Your task to perform on an android device: turn off location Image 0: 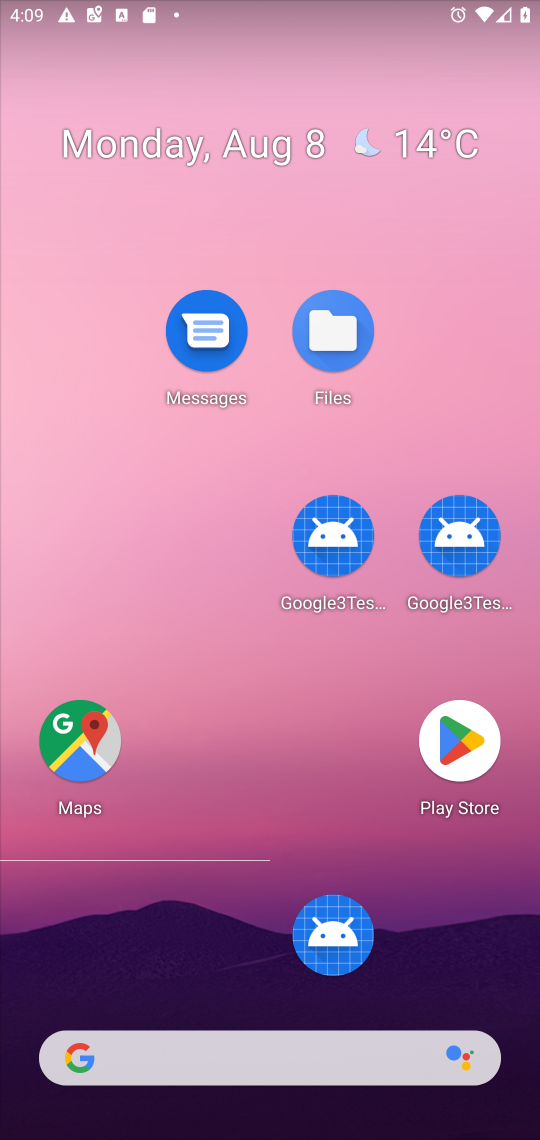
Step 0: drag from (297, 1065) to (359, 221)
Your task to perform on an android device: turn off location Image 1: 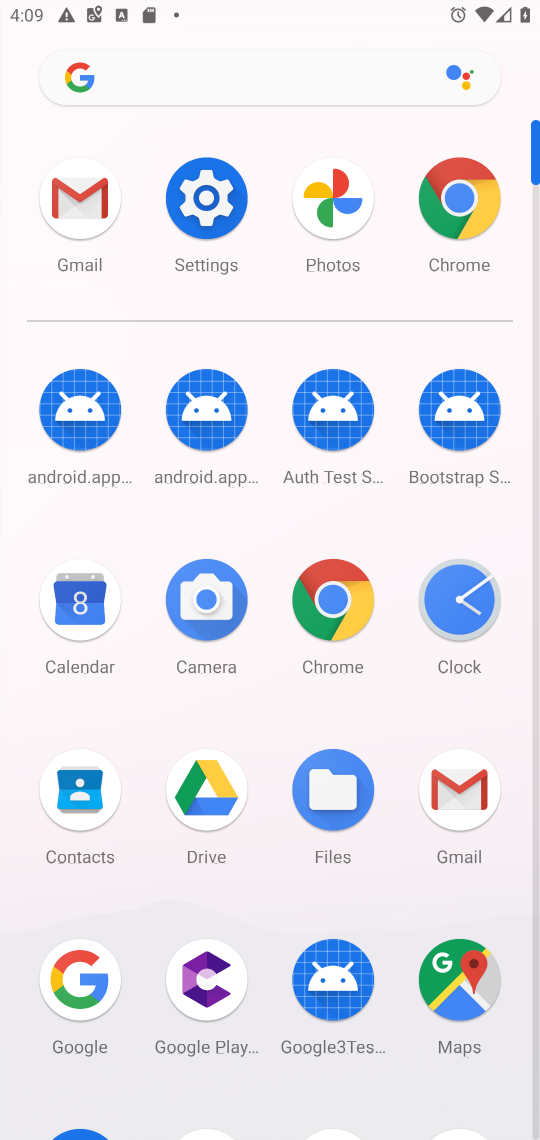
Step 1: click (205, 205)
Your task to perform on an android device: turn off location Image 2: 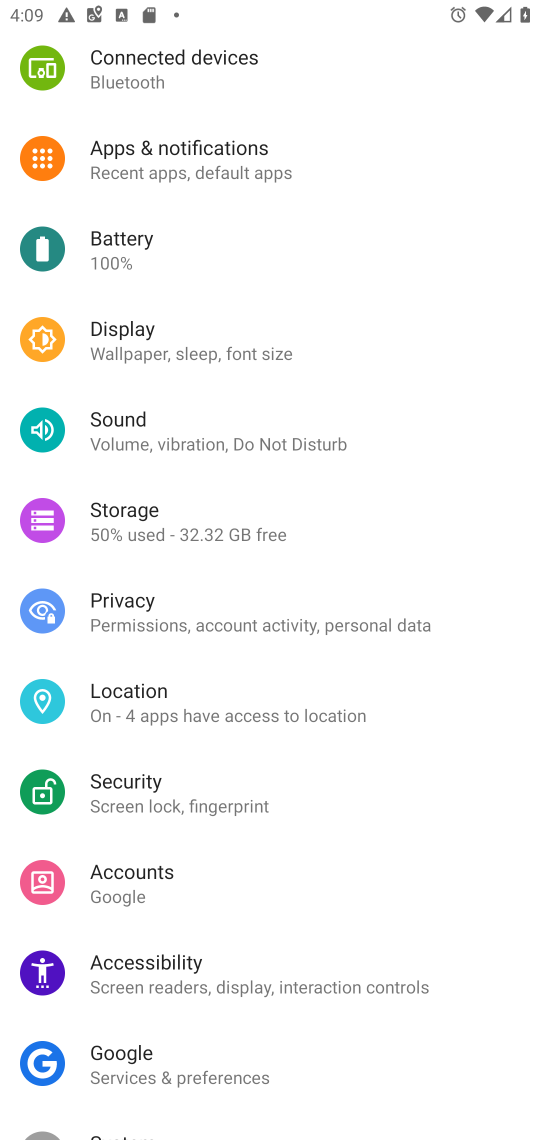
Step 2: click (158, 694)
Your task to perform on an android device: turn off location Image 3: 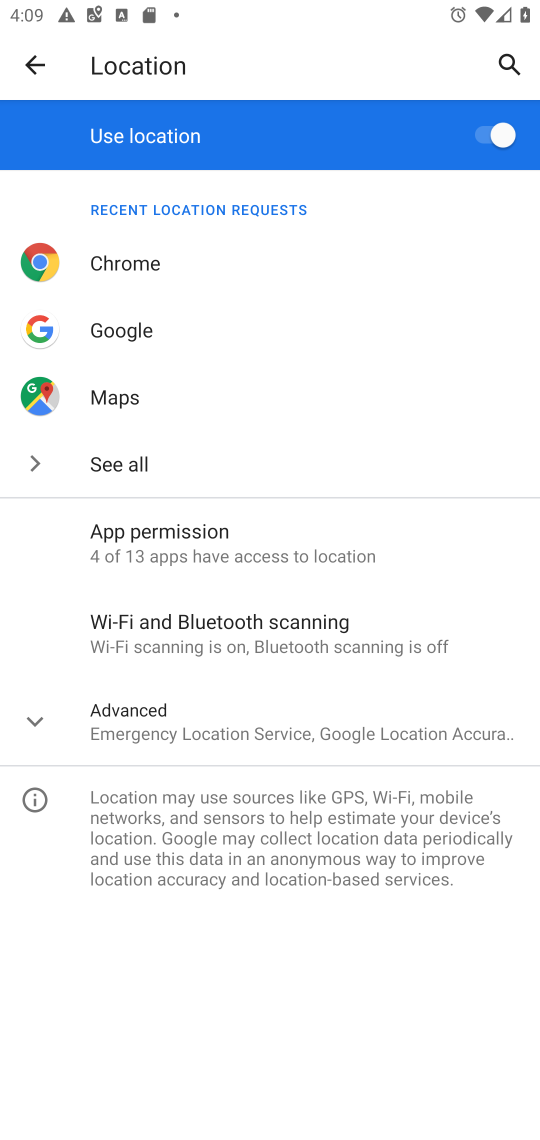
Step 3: click (163, 728)
Your task to perform on an android device: turn off location Image 4: 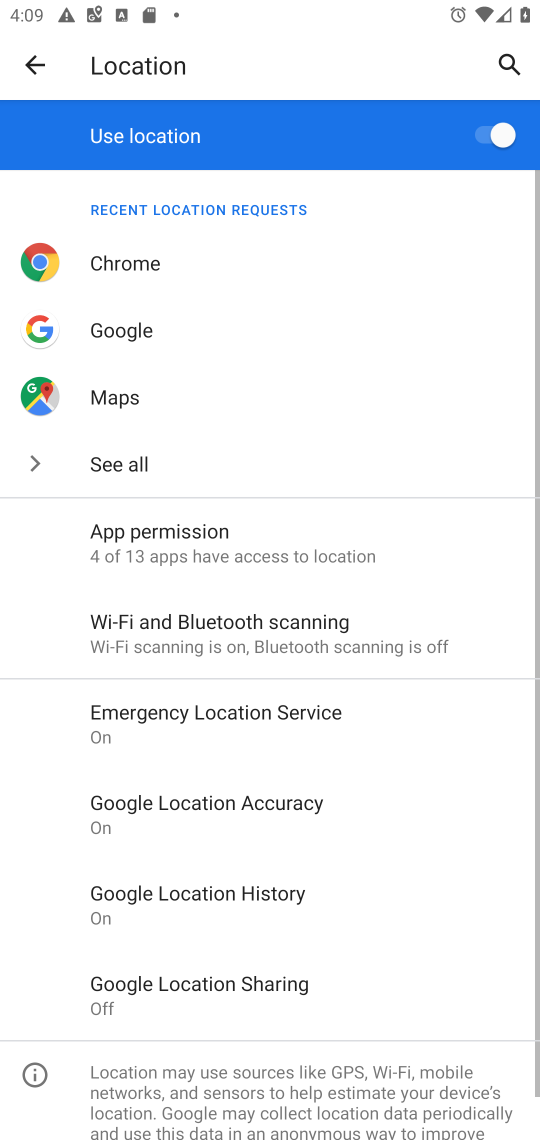
Step 4: click (476, 128)
Your task to perform on an android device: turn off location Image 5: 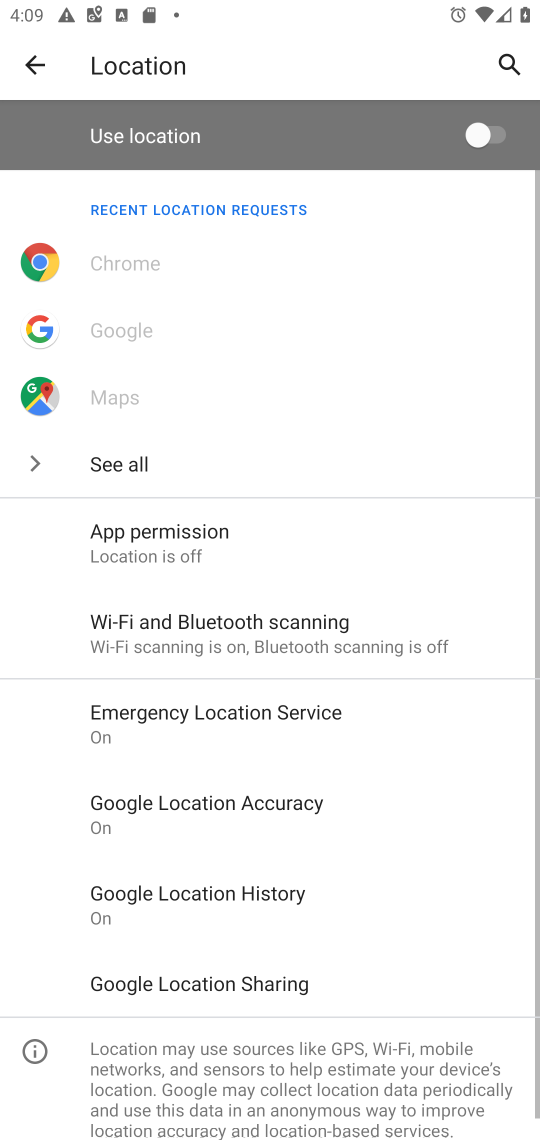
Step 5: task complete